Your task to perform on an android device: Search for razer nari on target, select the first entry, and add it to the cart. Image 0: 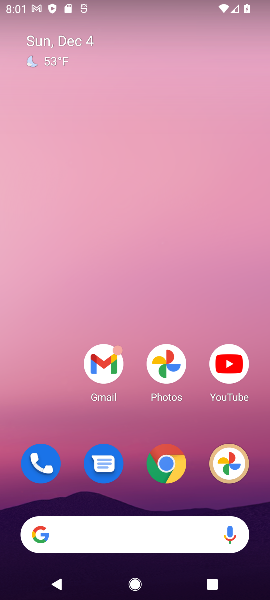
Step 0: click (162, 515)
Your task to perform on an android device: Search for razer nari on target, select the first entry, and add it to the cart. Image 1: 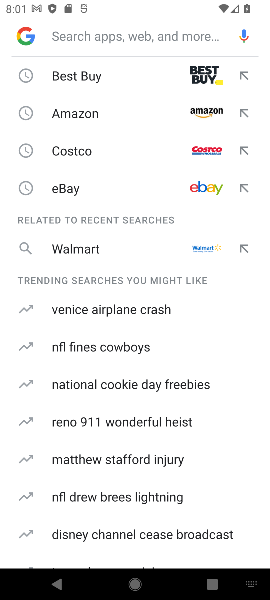
Step 1: type "target"
Your task to perform on an android device: Search for razer nari on target, select the first entry, and add it to the cart. Image 2: 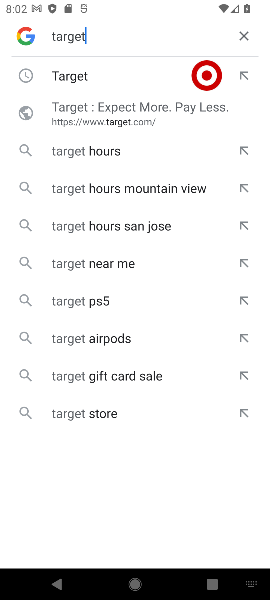
Step 2: click (153, 71)
Your task to perform on an android device: Search for razer nari on target, select the first entry, and add it to the cart. Image 3: 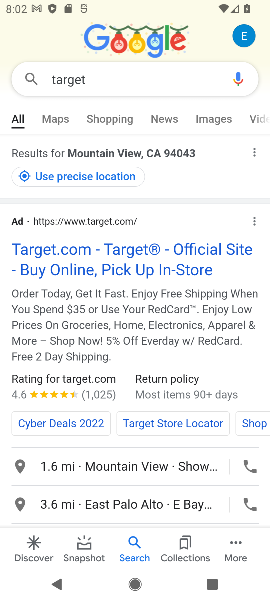
Step 3: click (137, 265)
Your task to perform on an android device: Search for razer nari on target, select the first entry, and add it to the cart. Image 4: 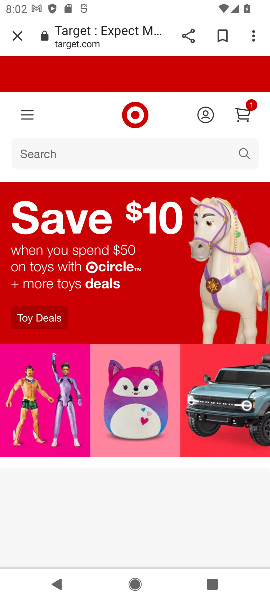
Step 4: click (124, 148)
Your task to perform on an android device: Search for razer nari on target, select the first entry, and add it to the cart. Image 5: 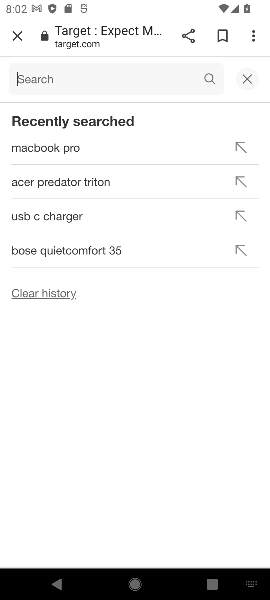
Step 5: type "razer nario"
Your task to perform on an android device: Search for razer nari on target, select the first entry, and add it to the cart. Image 6: 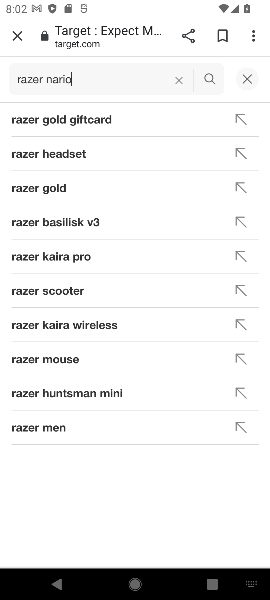
Step 6: task complete